Your task to perform on an android device: make emails show in primary in the gmail app Image 0: 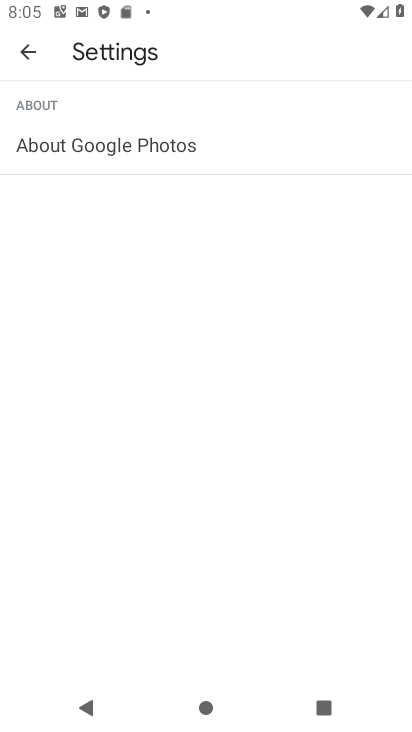
Step 0: press back button
Your task to perform on an android device: make emails show in primary in the gmail app Image 1: 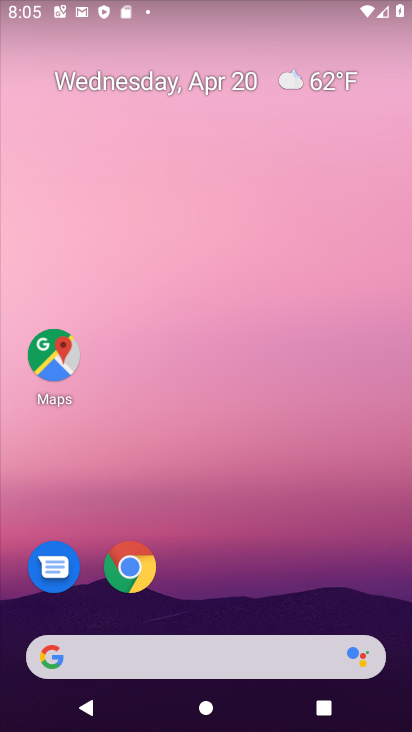
Step 1: drag from (233, 575) to (119, 51)
Your task to perform on an android device: make emails show in primary in the gmail app Image 2: 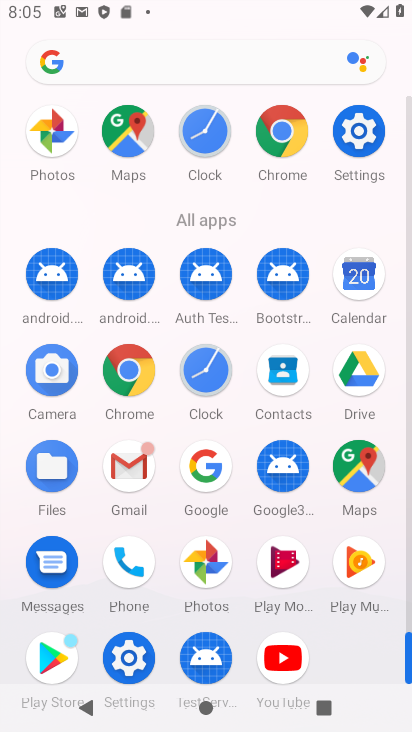
Step 2: drag from (14, 492) to (7, 193)
Your task to perform on an android device: make emails show in primary in the gmail app Image 3: 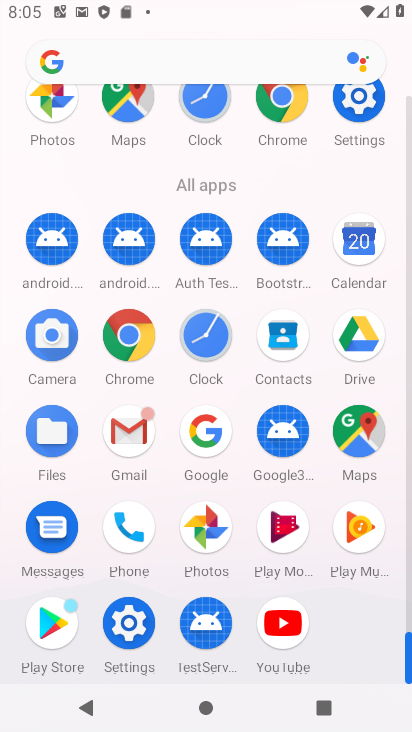
Step 3: click (125, 421)
Your task to perform on an android device: make emails show in primary in the gmail app Image 4: 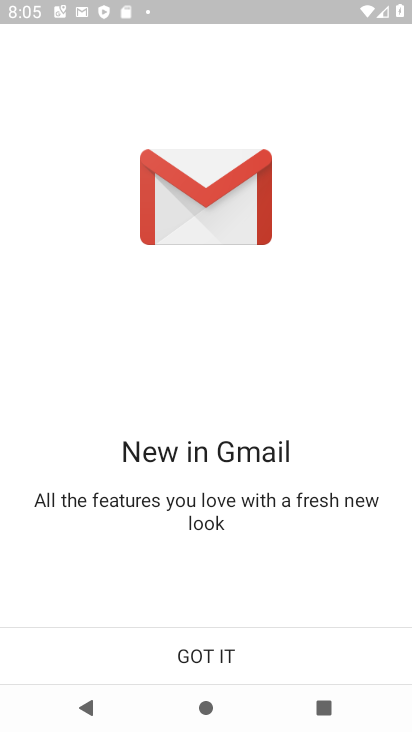
Step 4: click (197, 663)
Your task to perform on an android device: make emails show in primary in the gmail app Image 5: 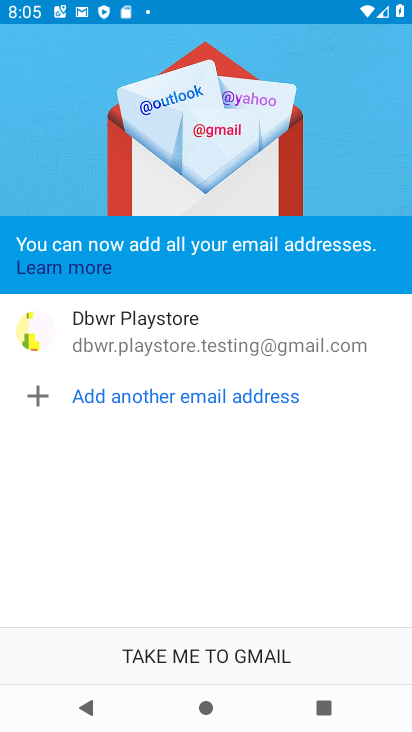
Step 5: click (197, 655)
Your task to perform on an android device: make emails show in primary in the gmail app Image 6: 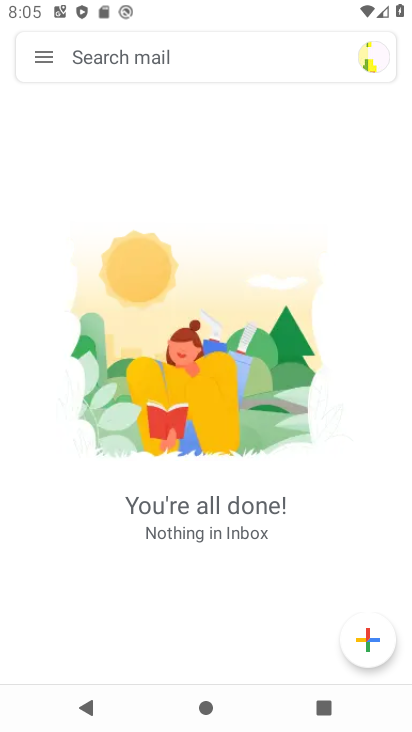
Step 6: click (56, 49)
Your task to perform on an android device: make emails show in primary in the gmail app Image 7: 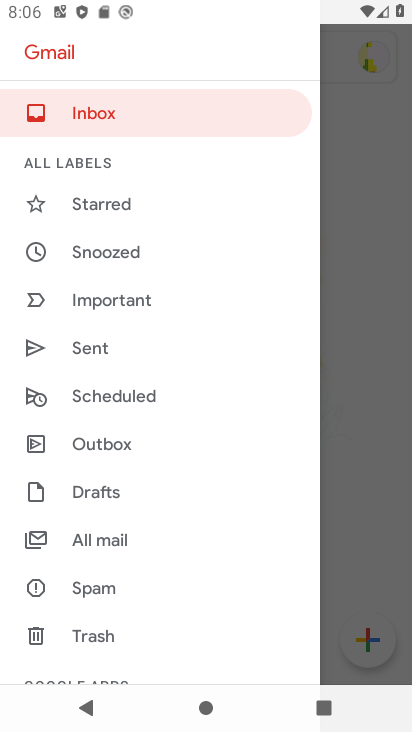
Step 7: drag from (147, 584) to (166, 154)
Your task to perform on an android device: make emails show in primary in the gmail app Image 8: 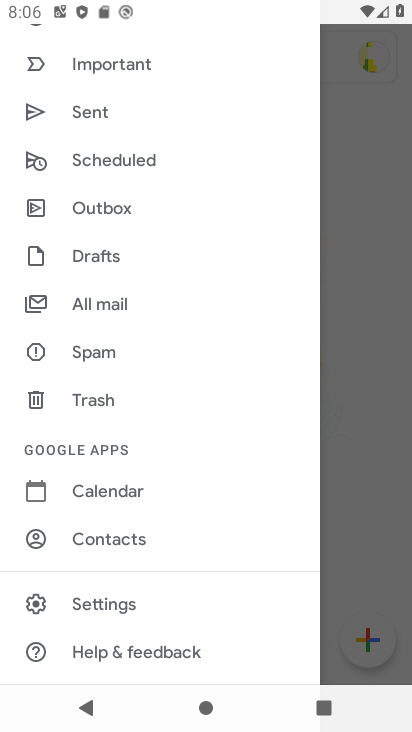
Step 8: click (118, 605)
Your task to perform on an android device: make emails show in primary in the gmail app Image 9: 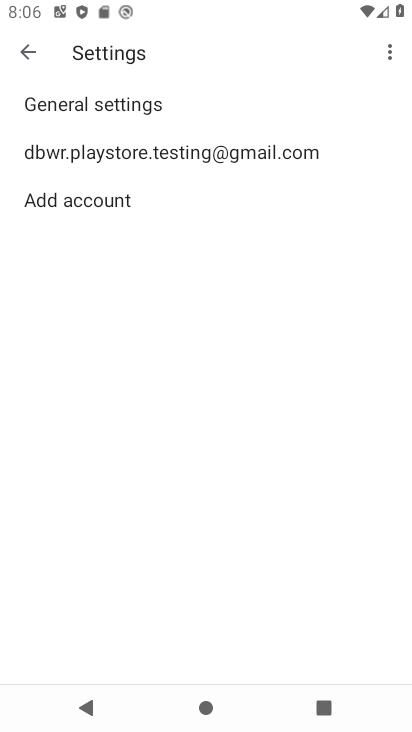
Step 9: click (174, 149)
Your task to perform on an android device: make emails show in primary in the gmail app Image 10: 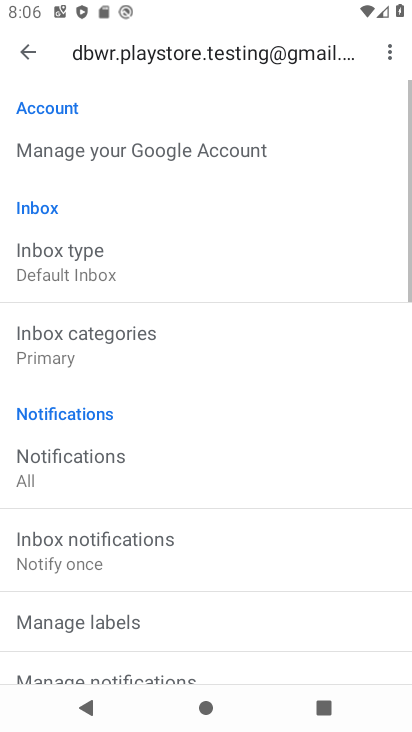
Step 10: click (121, 268)
Your task to perform on an android device: make emails show in primary in the gmail app Image 11: 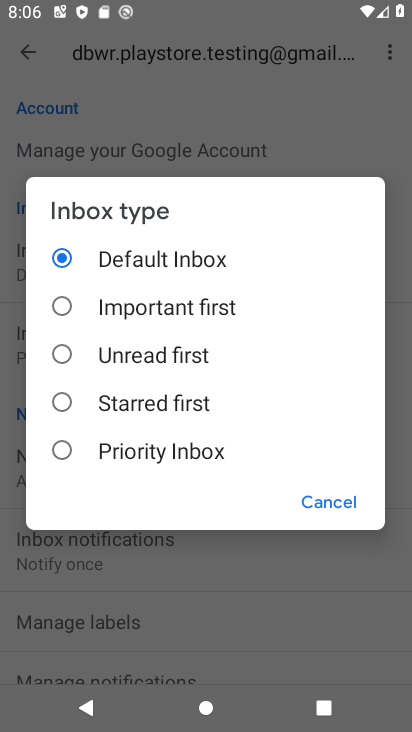
Step 11: click (121, 265)
Your task to perform on an android device: make emails show in primary in the gmail app Image 12: 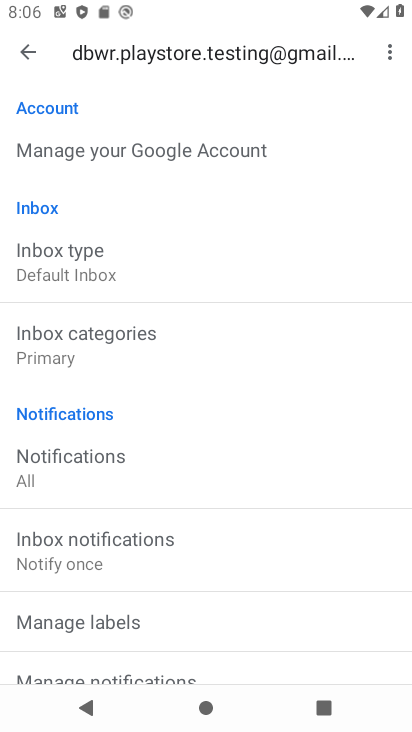
Step 12: click (108, 335)
Your task to perform on an android device: make emails show in primary in the gmail app Image 13: 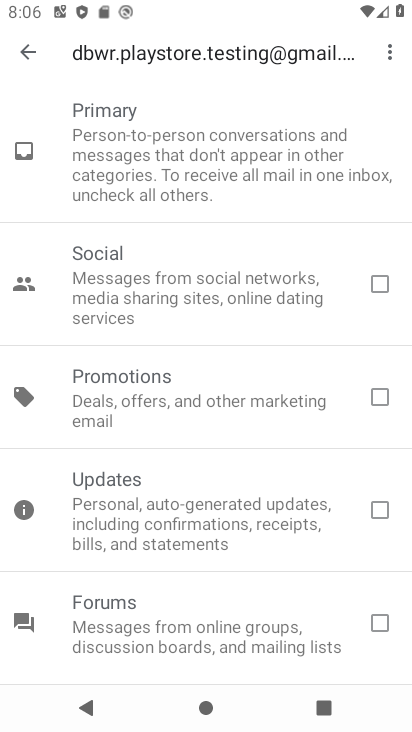
Step 13: click (30, 56)
Your task to perform on an android device: make emails show in primary in the gmail app Image 14: 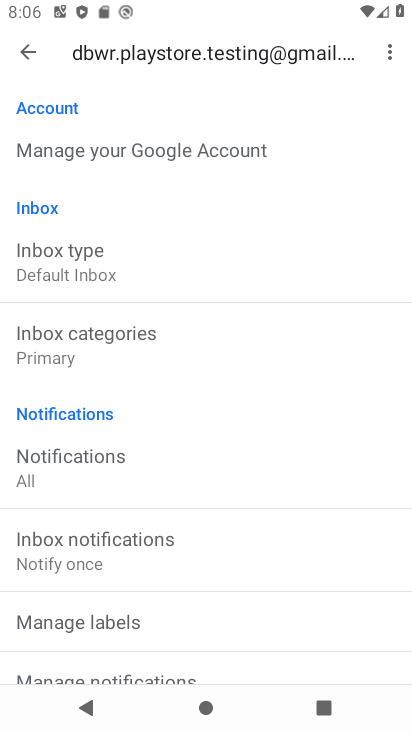
Step 14: task complete